Your task to perform on an android device: turn on the 12-hour format for clock Image 0: 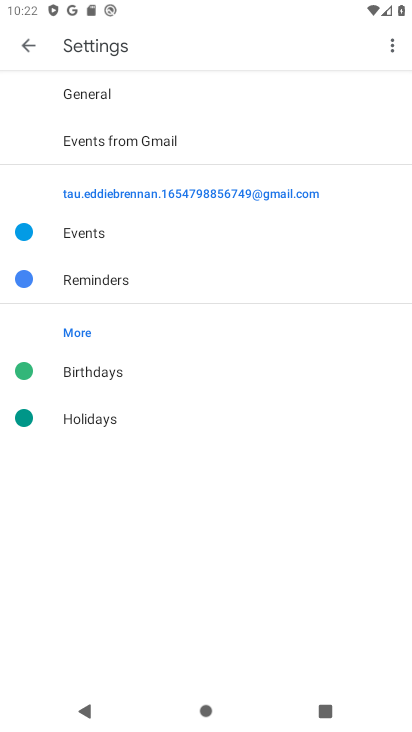
Step 0: press home button
Your task to perform on an android device: turn on the 12-hour format for clock Image 1: 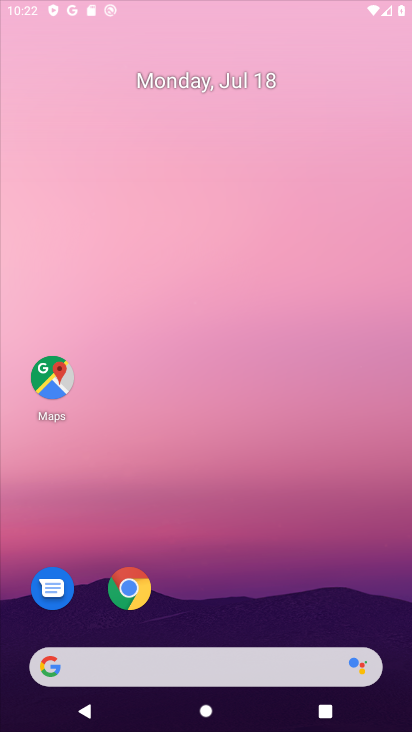
Step 1: drag from (292, 631) to (329, 195)
Your task to perform on an android device: turn on the 12-hour format for clock Image 2: 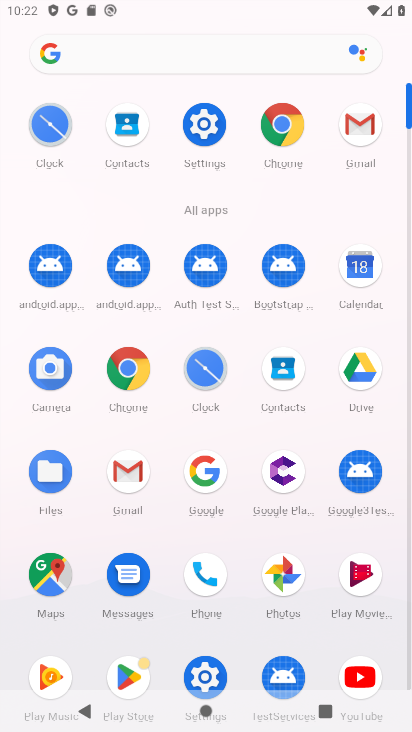
Step 2: click (194, 370)
Your task to perform on an android device: turn on the 12-hour format for clock Image 3: 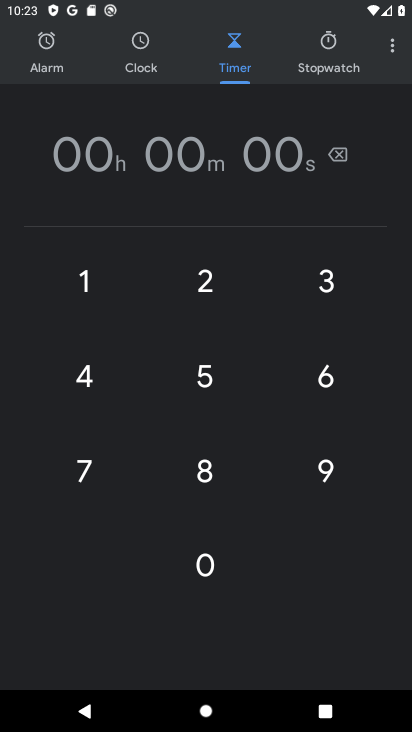
Step 3: click (396, 42)
Your task to perform on an android device: turn on the 12-hour format for clock Image 4: 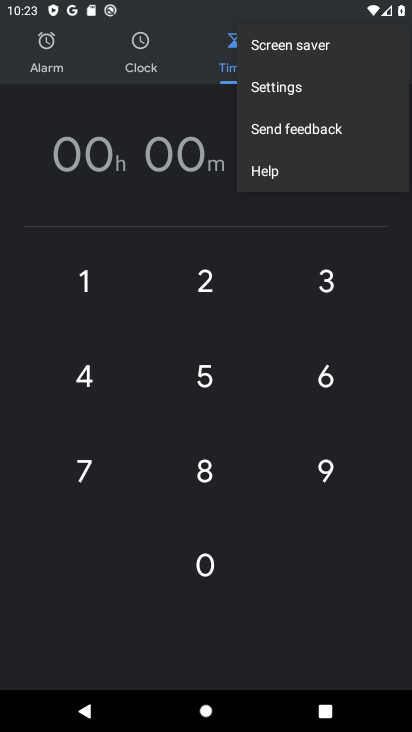
Step 4: click (301, 99)
Your task to perform on an android device: turn on the 12-hour format for clock Image 5: 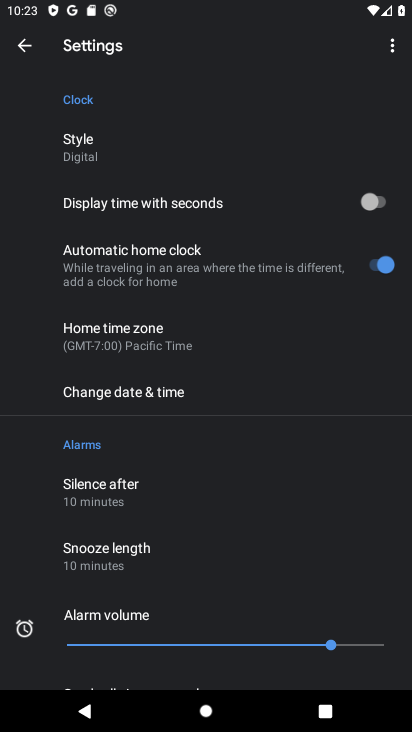
Step 5: click (81, 393)
Your task to perform on an android device: turn on the 12-hour format for clock Image 6: 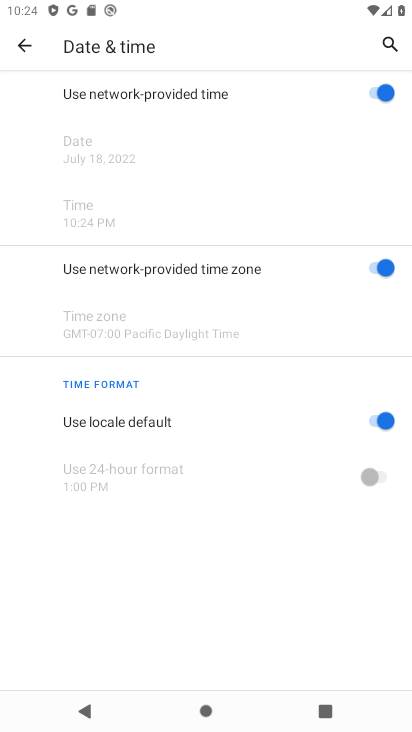
Step 6: click (248, 406)
Your task to perform on an android device: turn on the 12-hour format for clock Image 7: 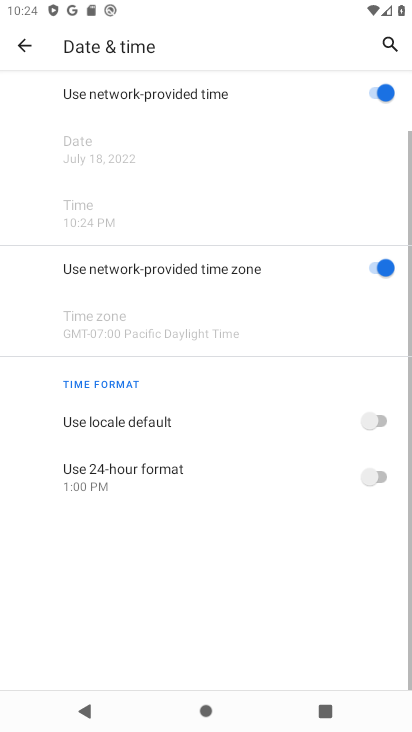
Step 7: click (250, 478)
Your task to perform on an android device: turn on the 12-hour format for clock Image 8: 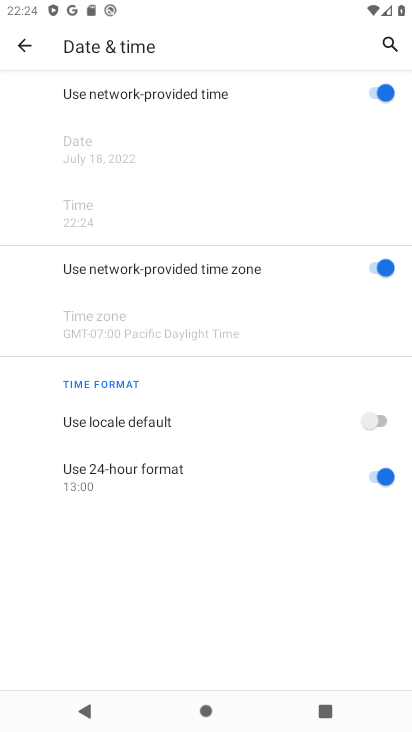
Step 8: task complete